Your task to perform on an android device: Open Youtube and go to "Your channel" Image 0: 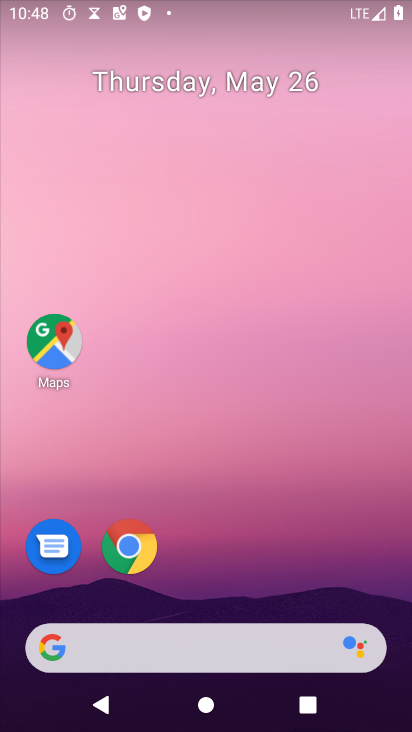
Step 0: drag from (298, 593) to (317, 173)
Your task to perform on an android device: Open Youtube and go to "Your channel" Image 1: 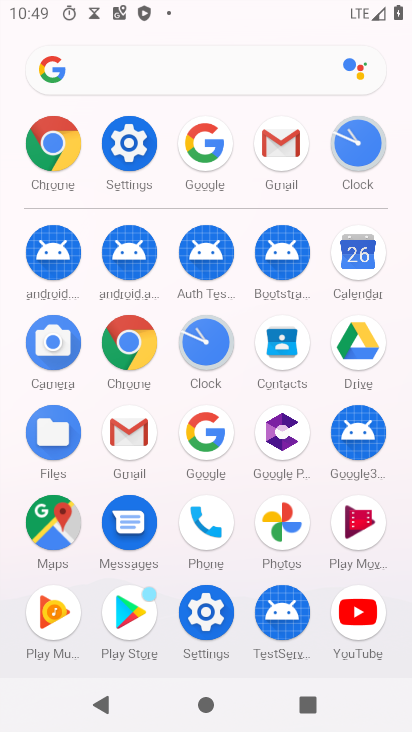
Step 1: click (340, 629)
Your task to perform on an android device: Open Youtube and go to "Your channel" Image 2: 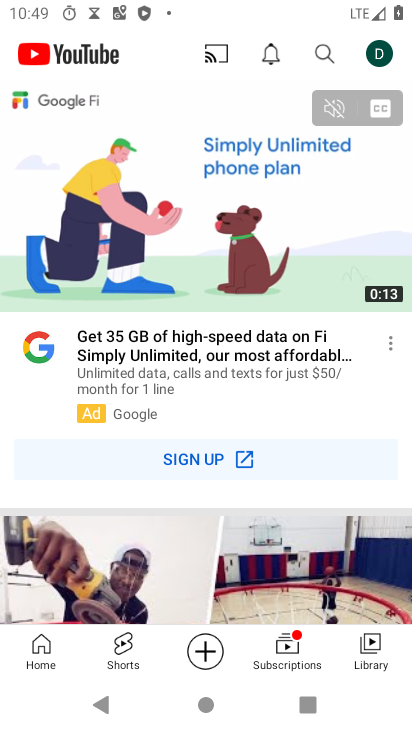
Step 2: drag from (326, 554) to (320, 195)
Your task to perform on an android device: Open Youtube and go to "Your channel" Image 3: 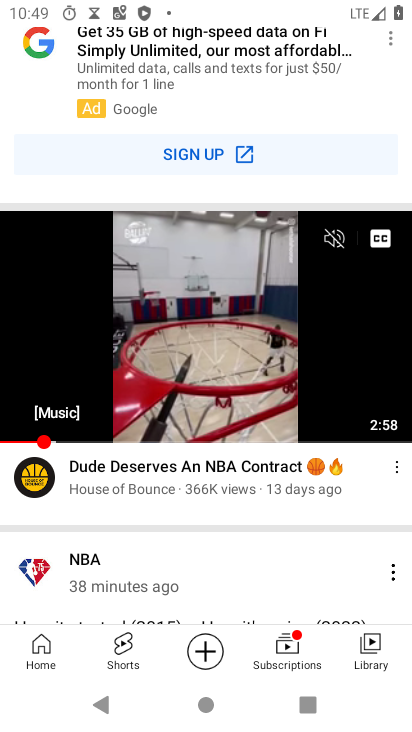
Step 3: drag from (324, 560) to (309, 227)
Your task to perform on an android device: Open Youtube and go to "Your channel" Image 4: 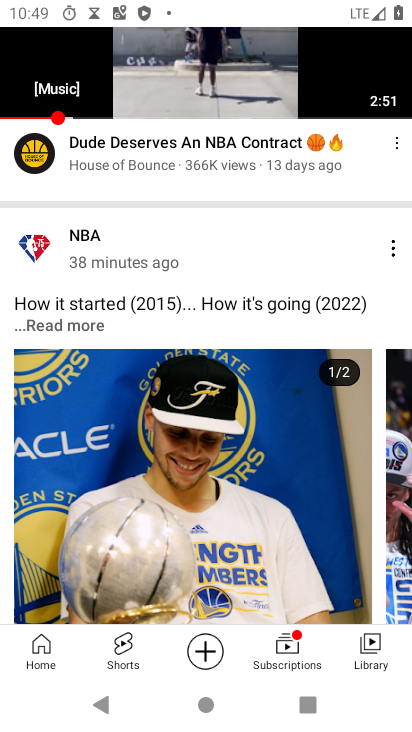
Step 4: drag from (354, 196) to (261, 607)
Your task to perform on an android device: Open Youtube and go to "Your channel" Image 5: 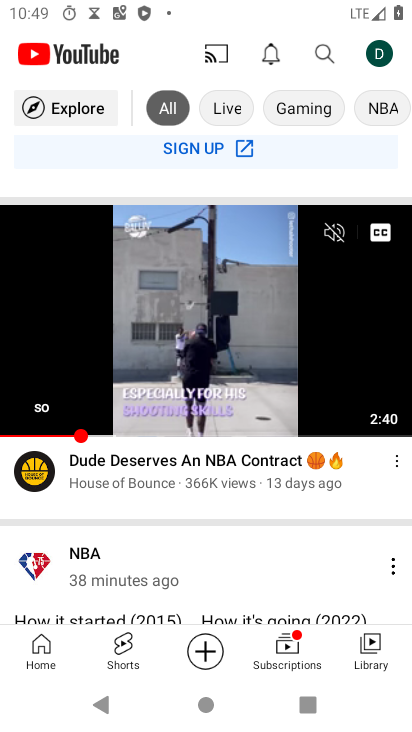
Step 5: click (373, 65)
Your task to perform on an android device: Open Youtube and go to "Your channel" Image 6: 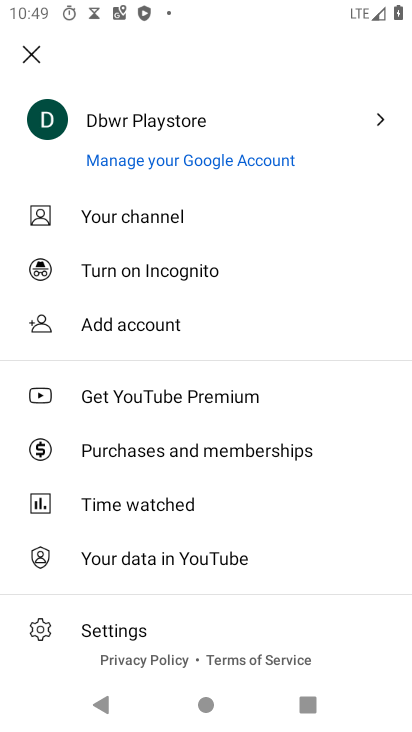
Step 6: click (182, 209)
Your task to perform on an android device: Open Youtube and go to "Your channel" Image 7: 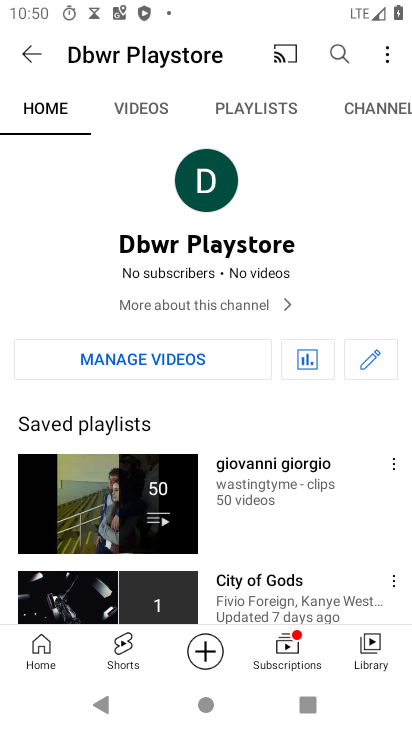
Step 7: task complete